Your task to perform on an android device: Open Chrome and go to settings Image 0: 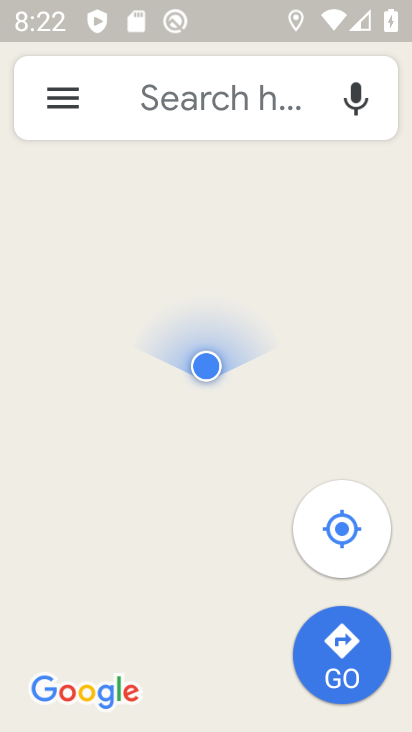
Step 0: press home button
Your task to perform on an android device: Open Chrome and go to settings Image 1: 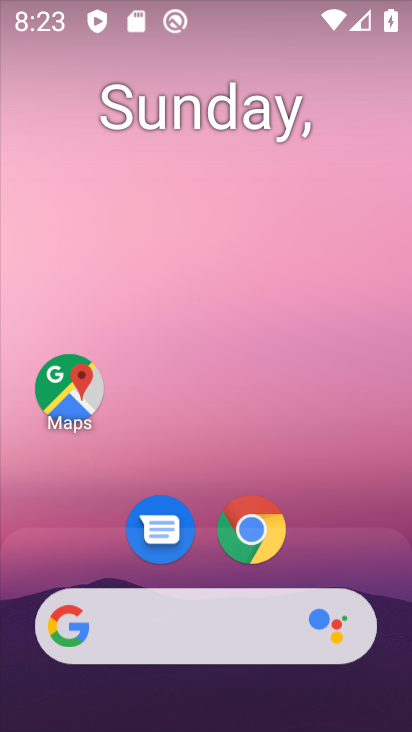
Step 1: click (271, 538)
Your task to perform on an android device: Open Chrome and go to settings Image 2: 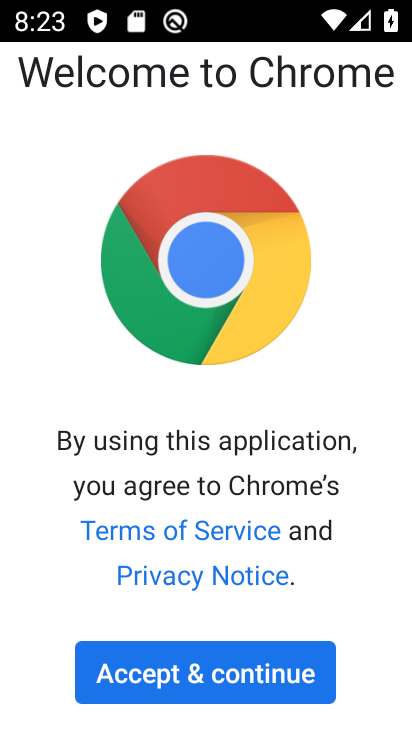
Step 2: click (282, 670)
Your task to perform on an android device: Open Chrome and go to settings Image 3: 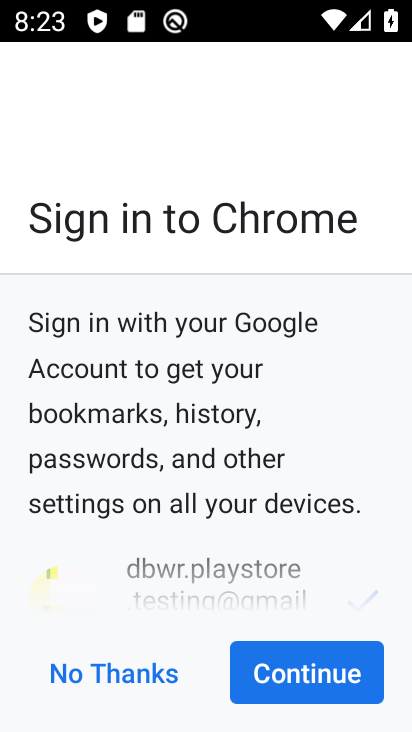
Step 3: click (324, 676)
Your task to perform on an android device: Open Chrome and go to settings Image 4: 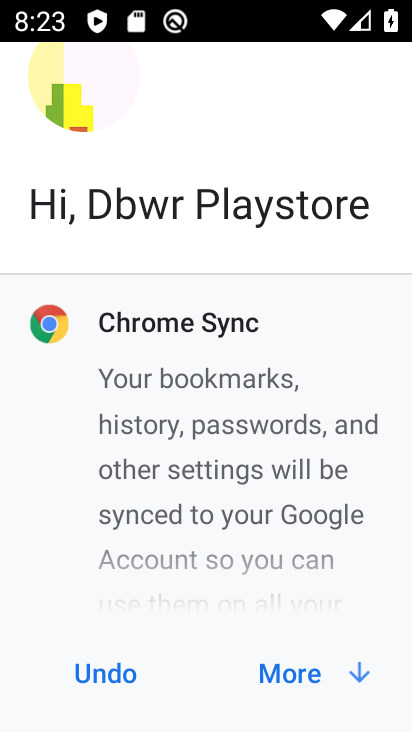
Step 4: click (313, 678)
Your task to perform on an android device: Open Chrome and go to settings Image 5: 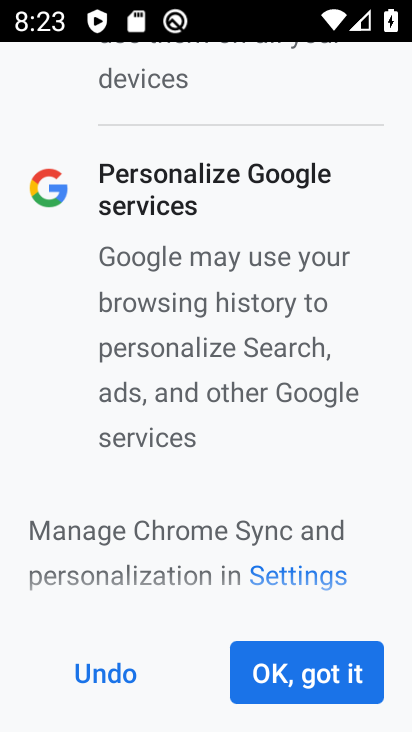
Step 5: click (313, 678)
Your task to perform on an android device: Open Chrome and go to settings Image 6: 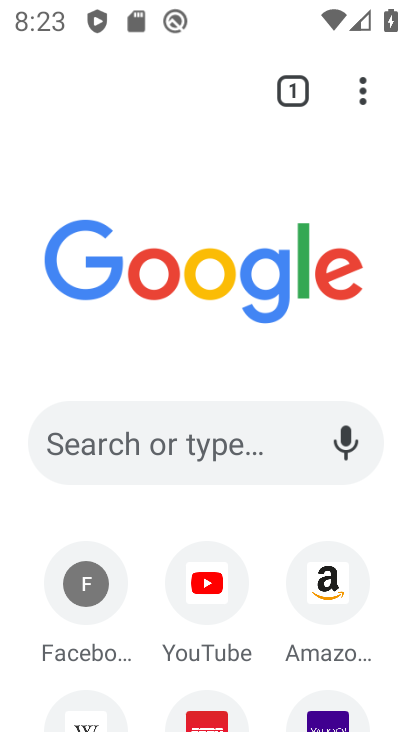
Step 6: click (361, 102)
Your task to perform on an android device: Open Chrome and go to settings Image 7: 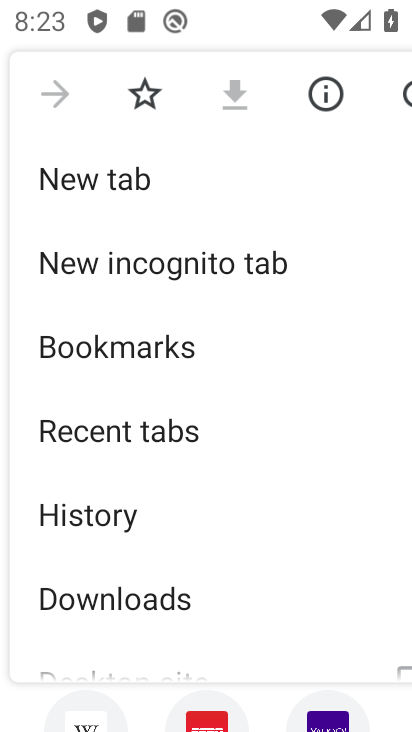
Step 7: drag from (248, 623) to (212, 226)
Your task to perform on an android device: Open Chrome and go to settings Image 8: 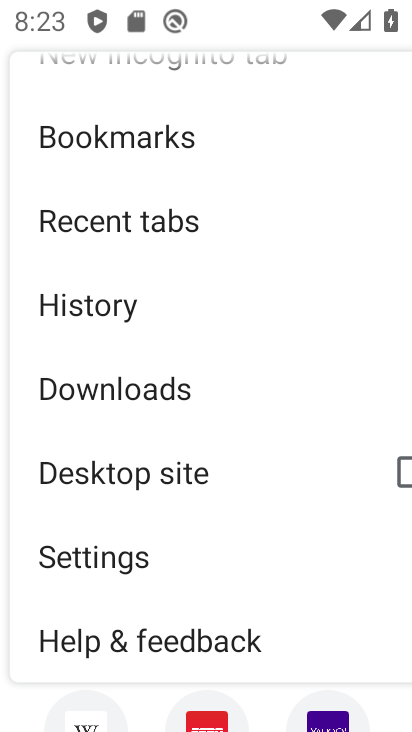
Step 8: click (183, 567)
Your task to perform on an android device: Open Chrome and go to settings Image 9: 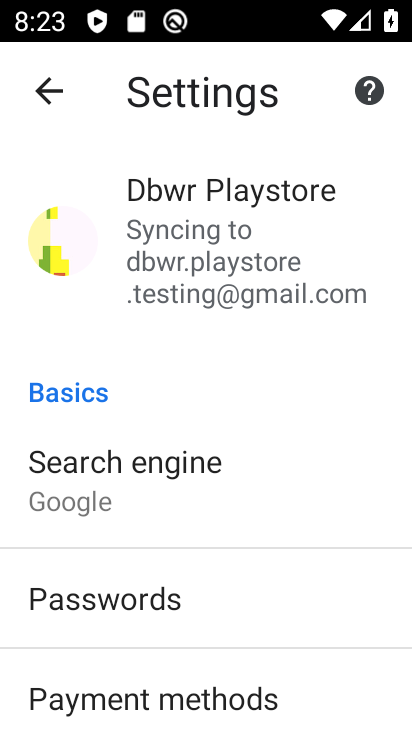
Step 9: task complete